Your task to perform on an android device: allow notifications from all sites in the chrome app Image 0: 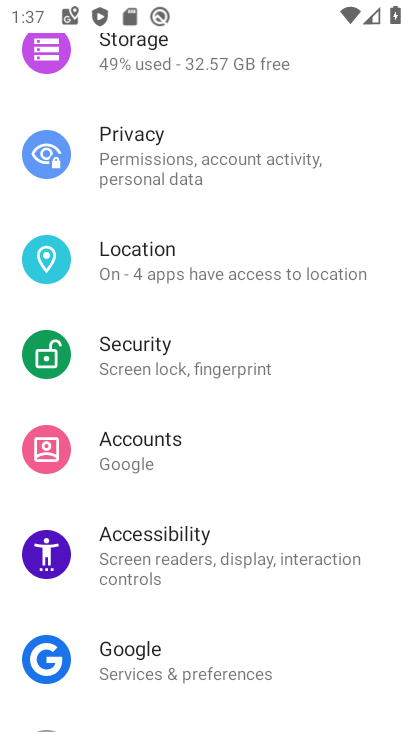
Step 0: press home button
Your task to perform on an android device: allow notifications from all sites in the chrome app Image 1: 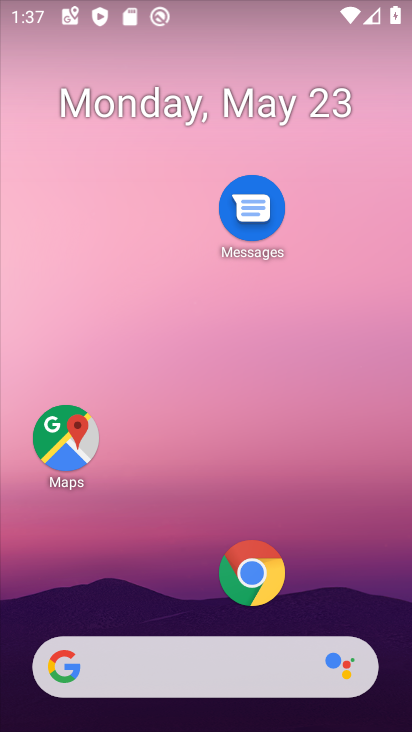
Step 1: drag from (175, 522) to (159, 23)
Your task to perform on an android device: allow notifications from all sites in the chrome app Image 2: 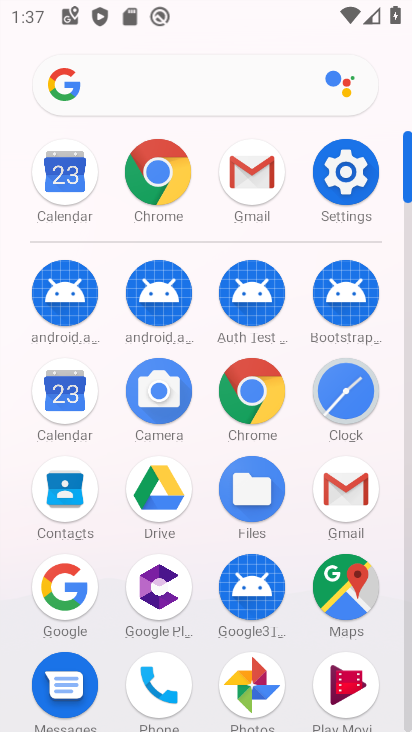
Step 2: click (177, 168)
Your task to perform on an android device: allow notifications from all sites in the chrome app Image 3: 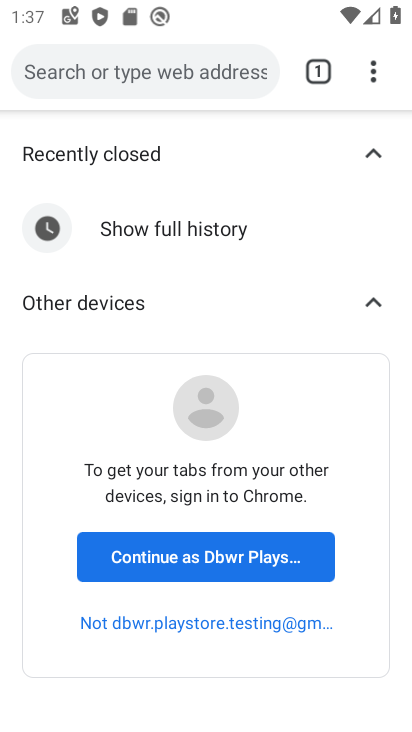
Step 3: click (373, 71)
Your task to perform on an android device: allow notifications from all sites in the chrome app Image 4: 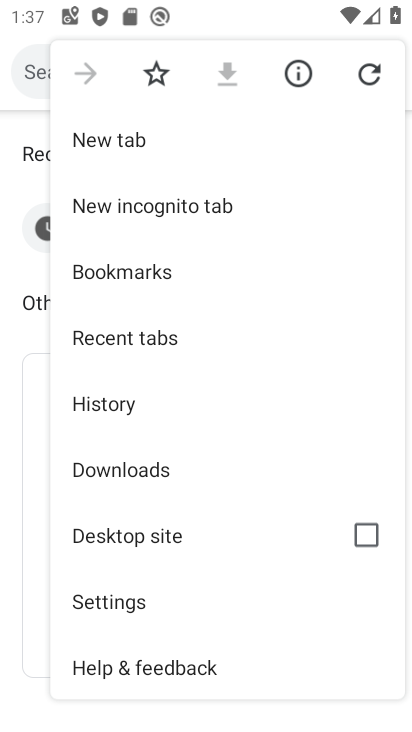
Step 4: click (160, 600)
Your task to perform on an android device: allow notifications from all sites in the chrome app Image 5: 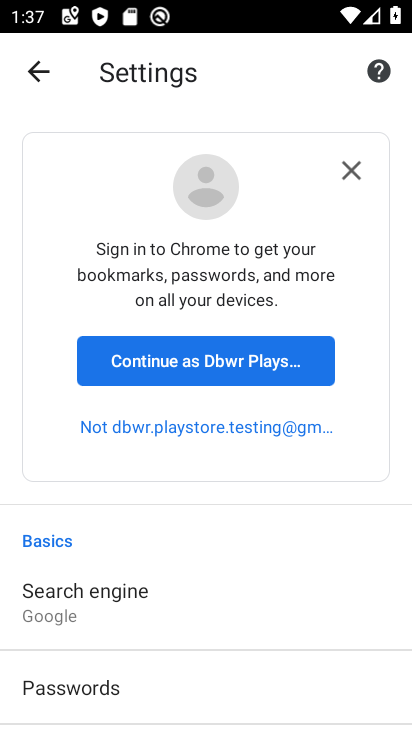
Step 5: drag from (221, 370) to (219, 275)
Your task to perform on an android device: allow notifications from all sites in the chrome app Image 6: 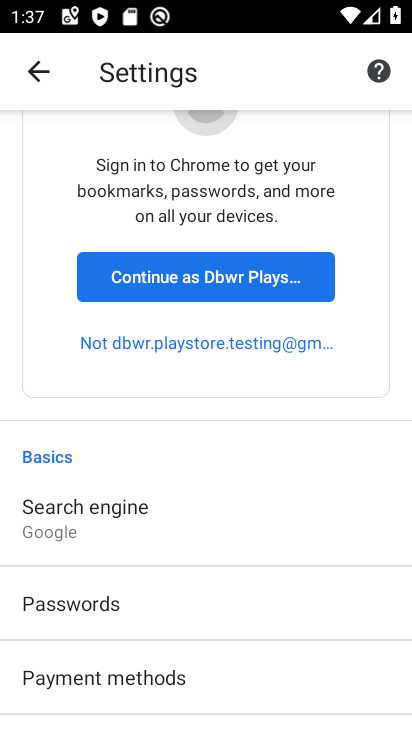
Step 6: drag from (244, 626) to (205, 345)
Your task to perform on an android device: allow notifications from all sites in the chrome app Image 7: 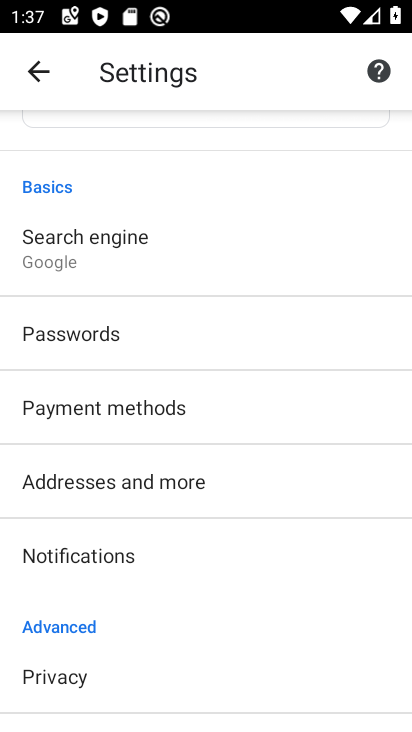
Step 7: click (112, 557)
Your task to perform on an android device: allow notifications from all sites in the chrome app Image 8: 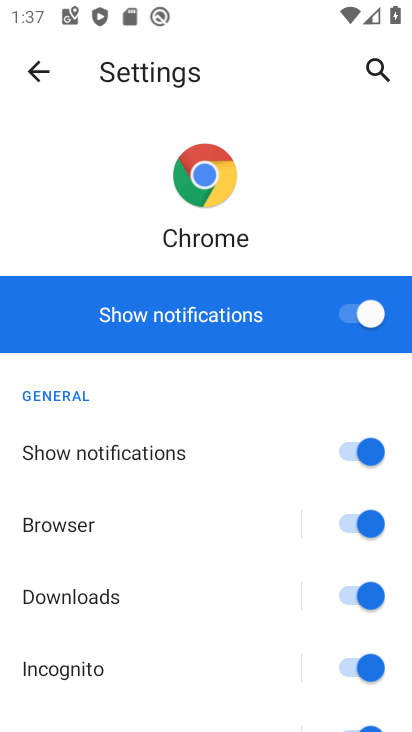
Step 8: task complete